Your task to perform on an android device: install app "Google Play Music" Image 0: 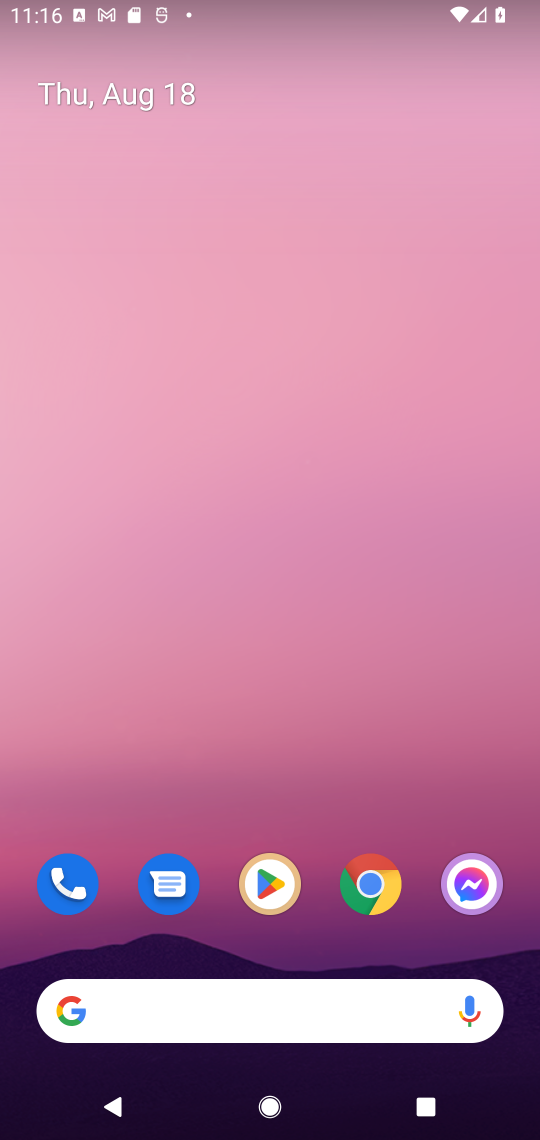
Step 0: drag from (239, 1012) to (256, 43)
Your task to perform on an android device: install app "Google Play Music" Image 1: 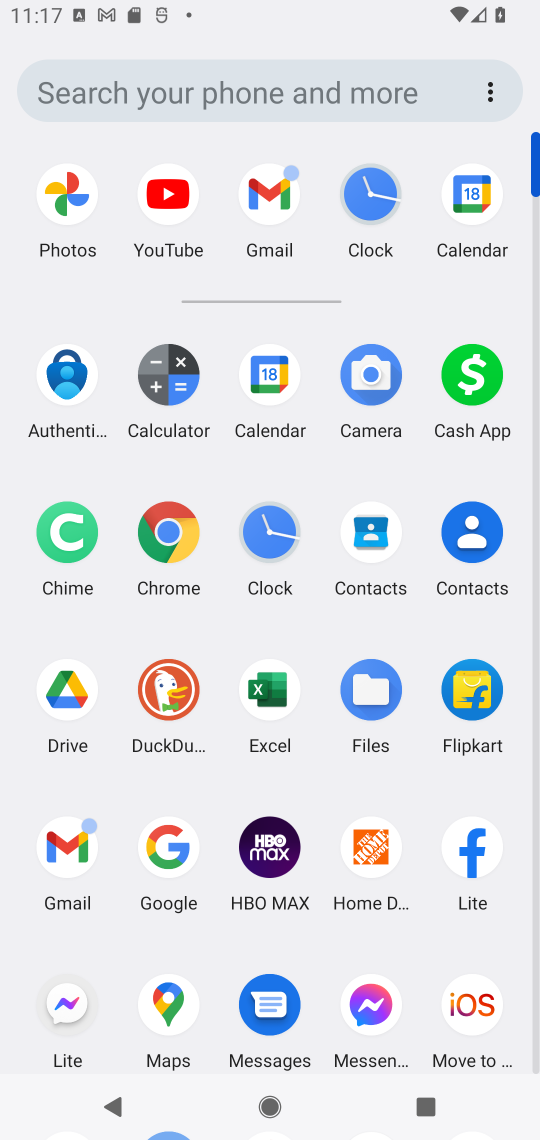
Step 1: drag from (324, 917) to (321, 405)
Your task to perform on an android device: install app "Google Play Music" Image 2: 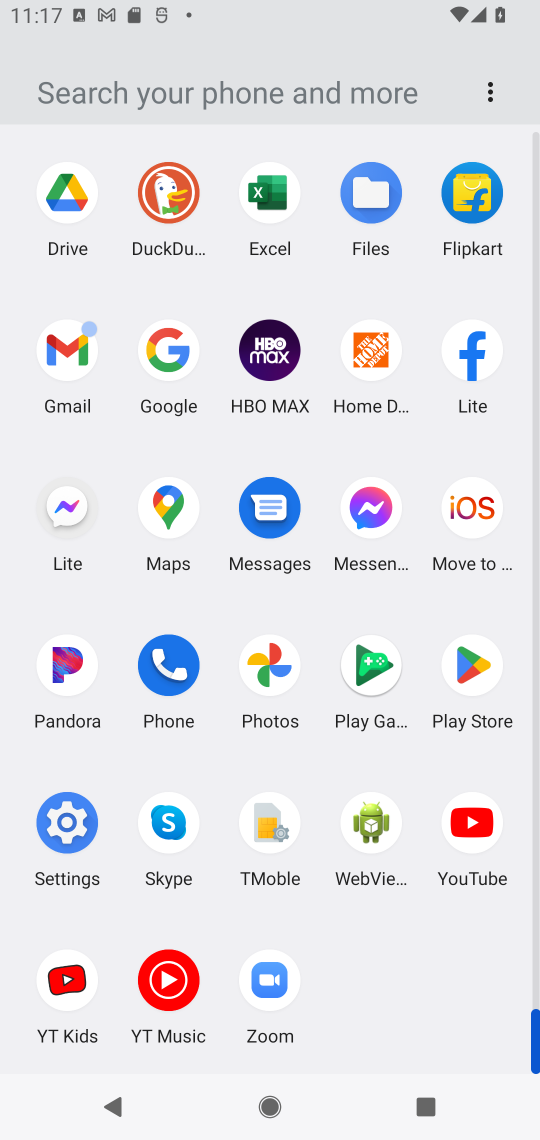
Step 2: click (475, 666)
Your task to perform on an android device: install app "Google Play Music" Image 3: 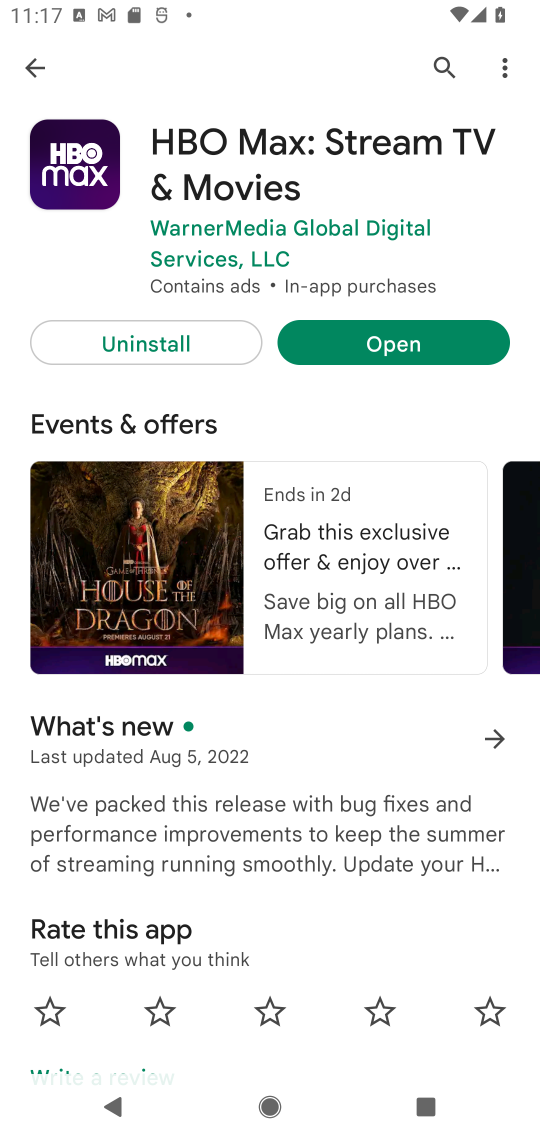
Step 3: press back button
Your task to perform on an android device: install app "Google Play Music" Image 4: 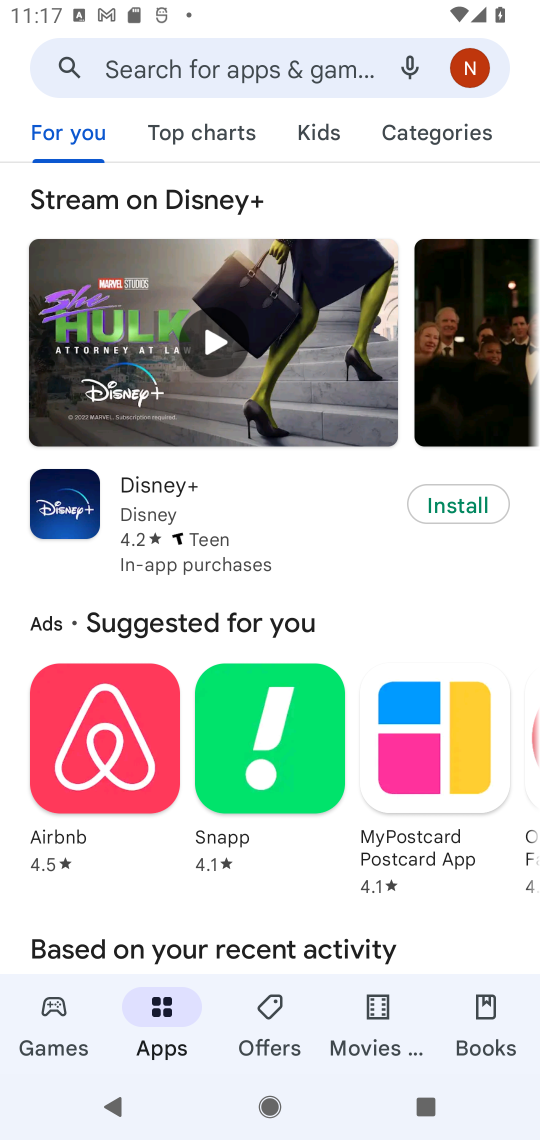
Step 4: click (271, 54)
Your task to perform on an android device: install app "Google Play Music" Image 5: 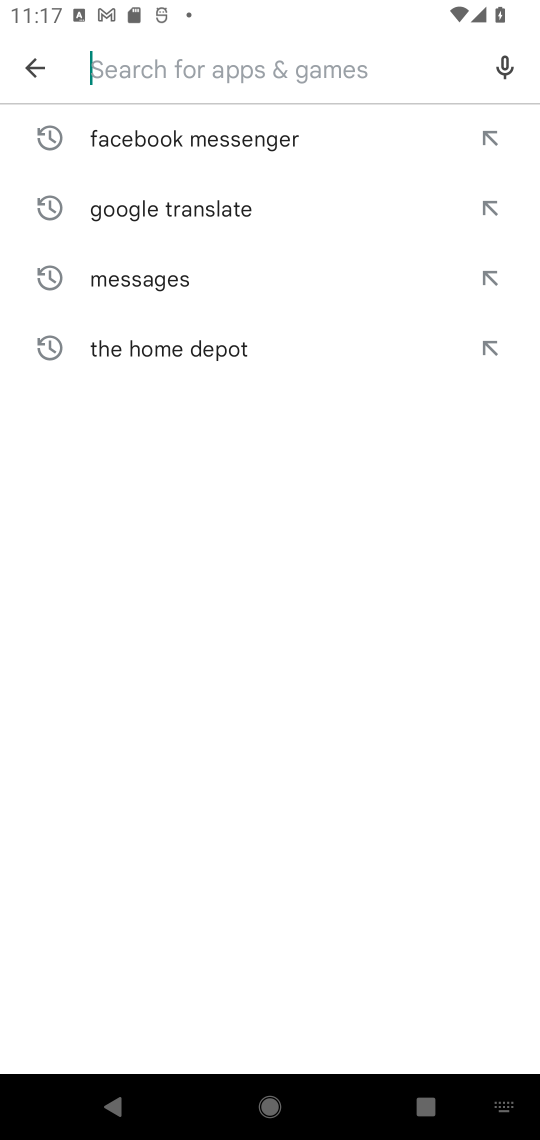
Step 5: type "Google Play Music"
Your task to perform on an android device: install app "Google Play Music" Image 6: 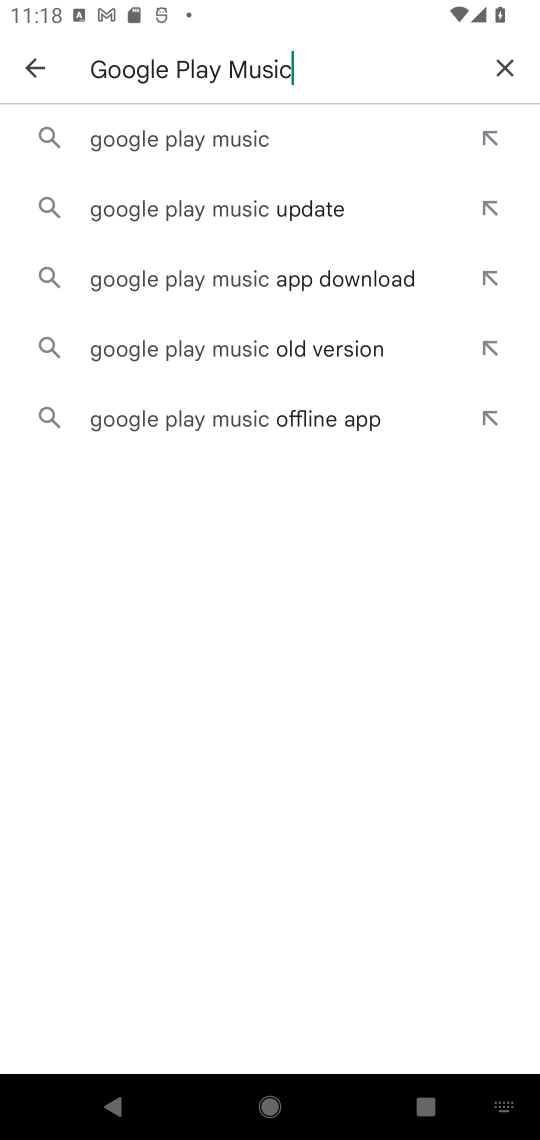
Step 6: click (242, 135)
Your task to perform on an android device: install app "Google Play Music" Image 7: 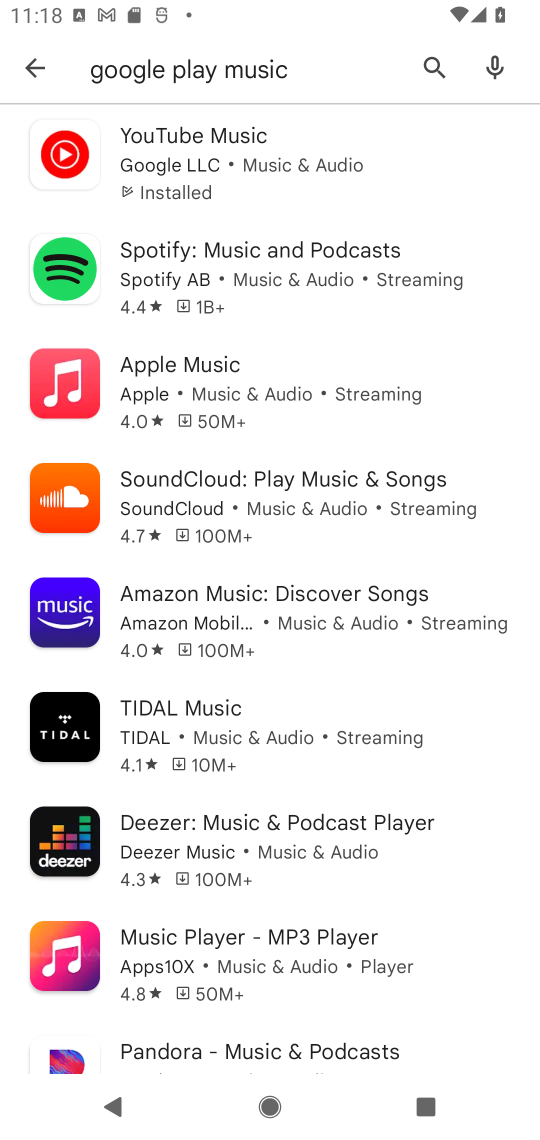
Step 7: click (227, 144)
Your task to perform on an android device: install app "Google Play Music" Image 8: 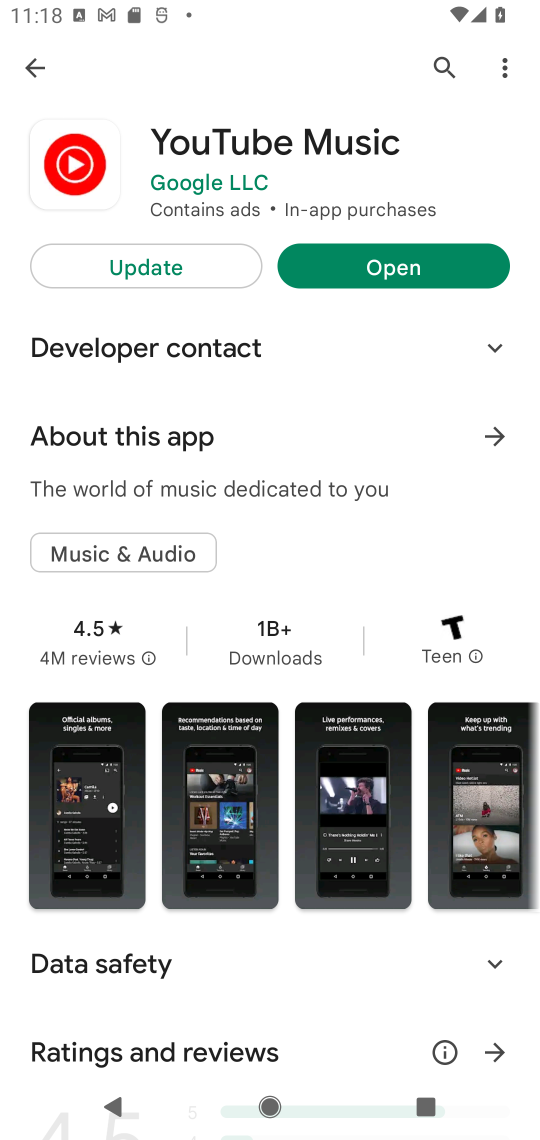
Step 8: task complete